Your task to perform on an android device: turn on showing notifications on the lock screen Image 0: 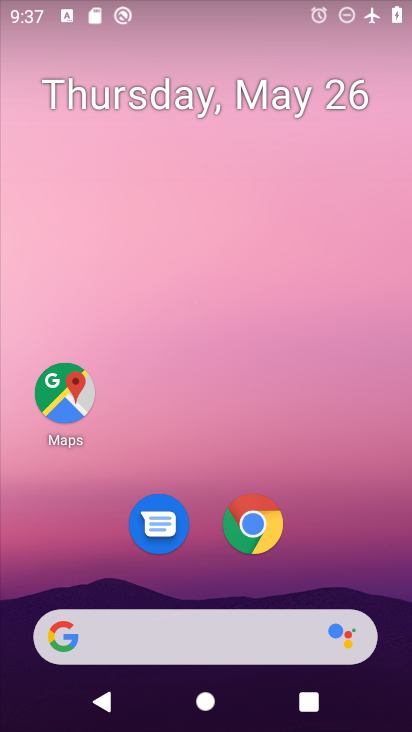
Step 0: drag from (327, 531) to (342, 29)
Your task to perform on an android device: turn on showing notifications on the lock screen Image 1: 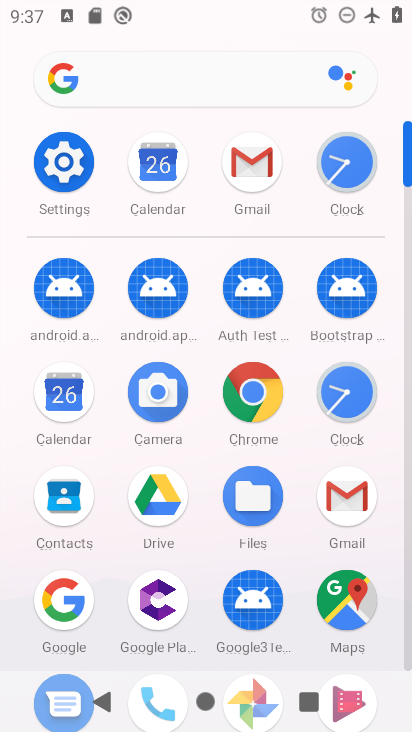
Step 1: click (67, 163)
Your task to perform on an android device: turn on showing notifications on the lock screen Image 2: 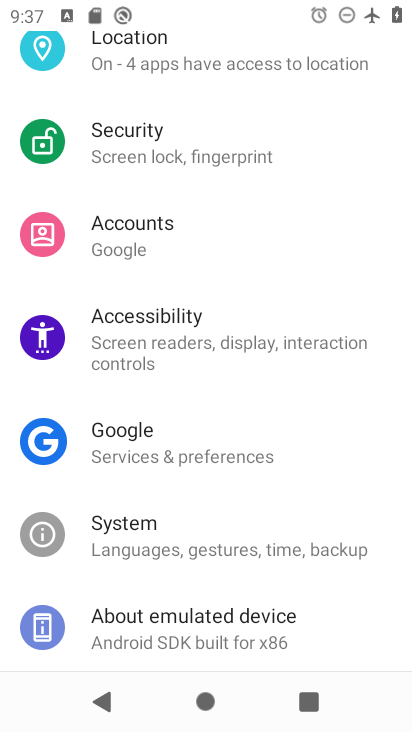
Step 2: drag from (211, 197) to (224, 545)
Your task to perform on an android device: turn on showing notifications on the lock screen Image 3: 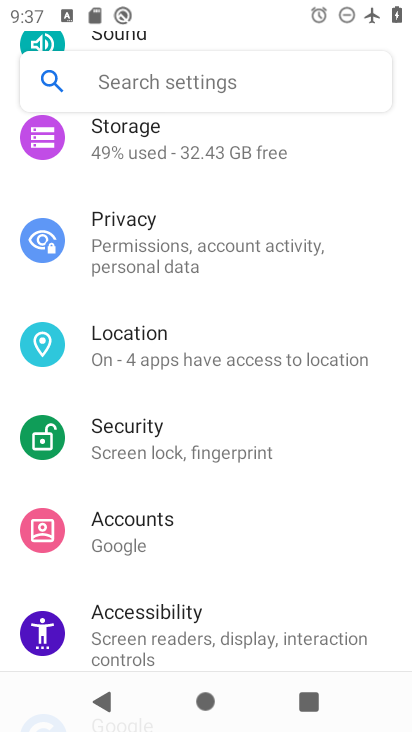
Step 3: drag from (275, 212) to (295, 603)
Your task to perform on an android device: turn on showing notifications on the lock screen Image 4: 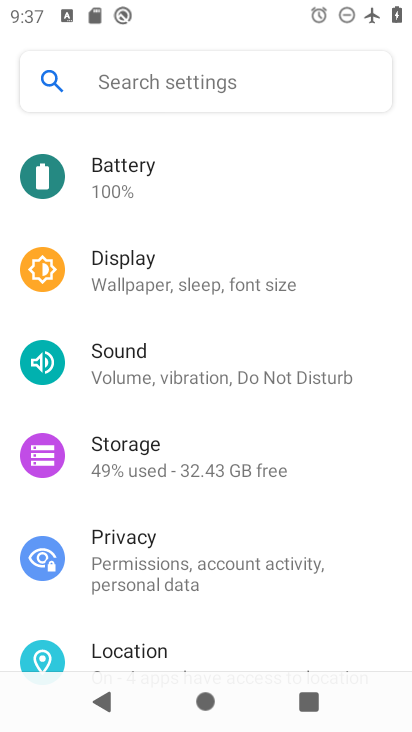
Step 4: drag from (236, 229) to (246, 523)
Your task to perform on an android device: turn on showing notifications on the lock screen Image 5: 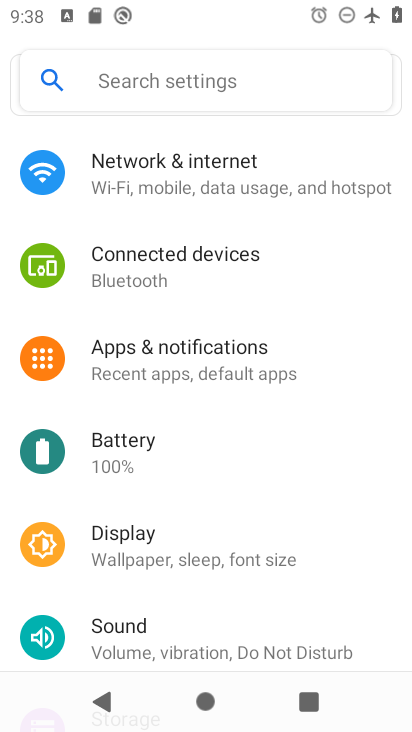
Step 5: click (219, 358)
Your task to perform on an android device: turn on showing notifications on the lock screen Image 6: 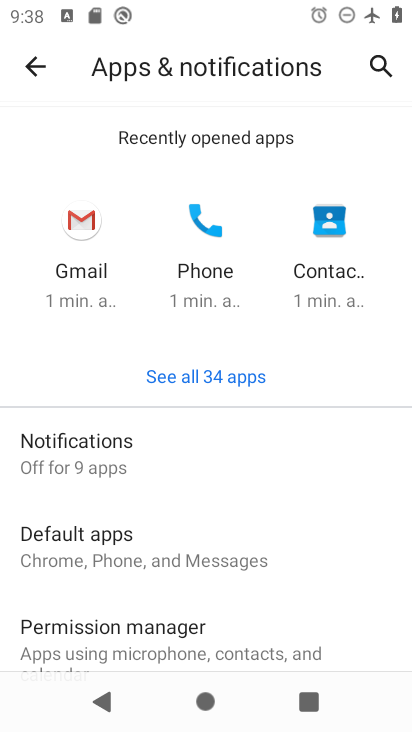
Step 6: click (167, 445)
Your task to perform on an android device: turn on showing notifications on the lock screen Image 7: 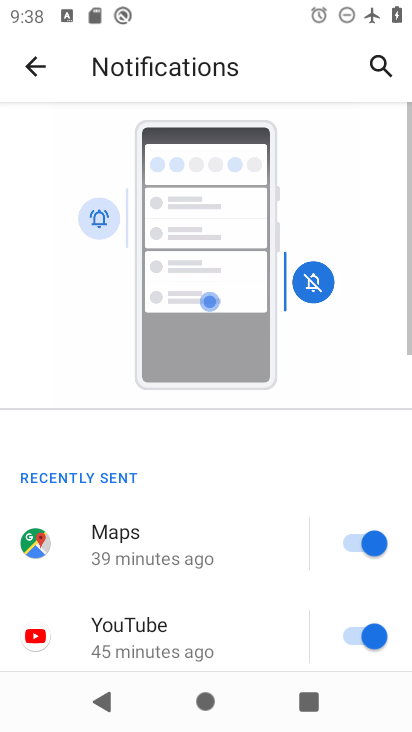
Step 7: task complete